Your task to perform on an android device: toggle wifi Image 0: 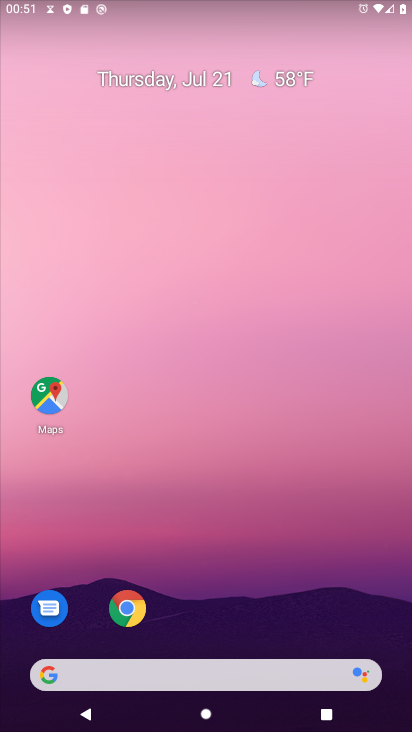
Step 0: press home button
Your task to perform on an android device: toggle wifi Image 1: 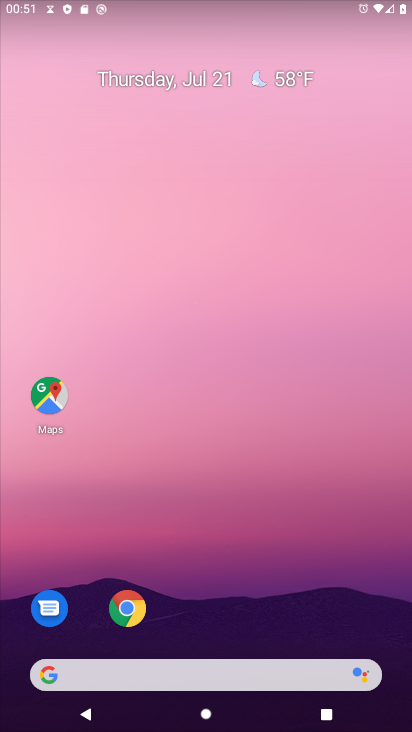
Step 1: drag from (190, 6) to (186, 538)
Your task to perform on an android device: toggle wifi Image 2: 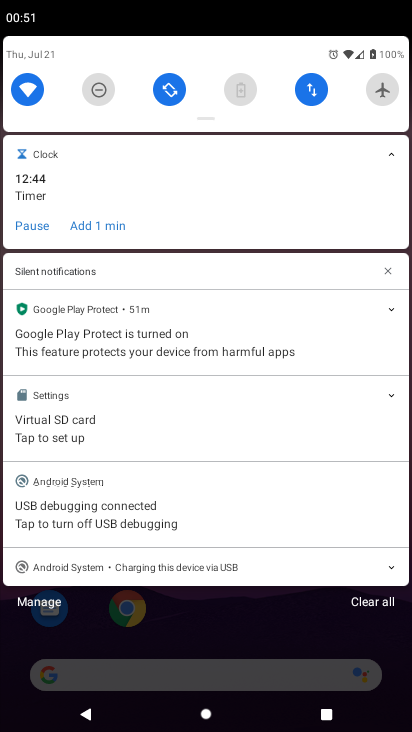
Step 2: click (25, 92)
Your task to perform on an android device: toggle wifi Image 3: 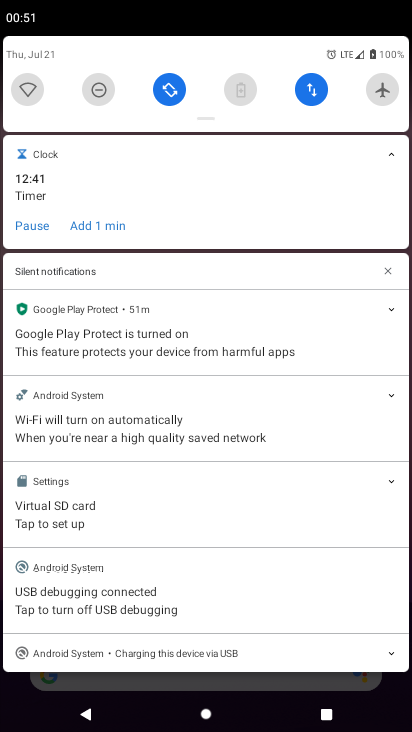
Step 3: task complete